Your task to perform on an android device: delete location history Image 0: 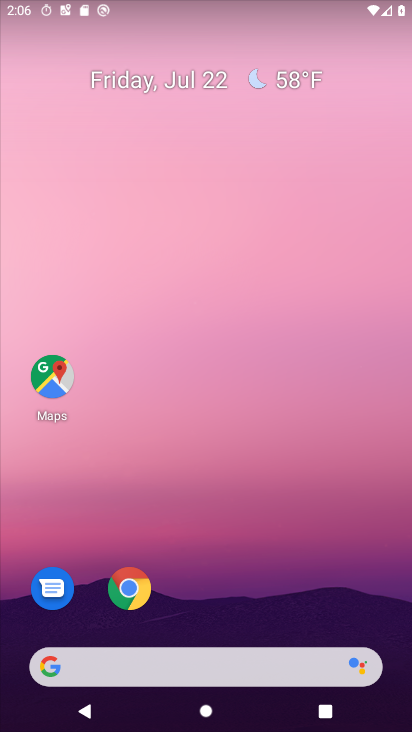
Step 0: drag from (315, 602) to (280, 53)
Your task to perform on an android device: delete location history Image 1: 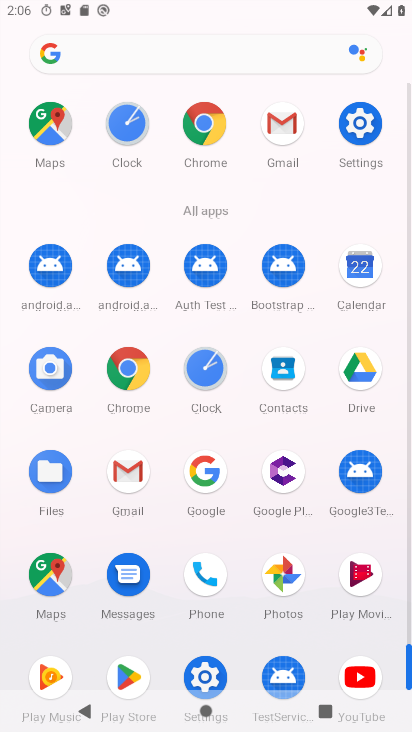
Step 1: click (46, 129)
Your task to perform on an android device: delete location history Image 2: 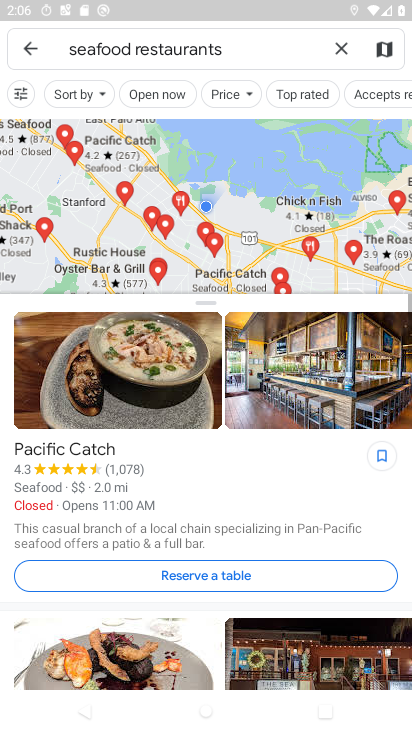
Step 2: click (26, 48)
Your task to perform on an android device: delete location history Image 3: 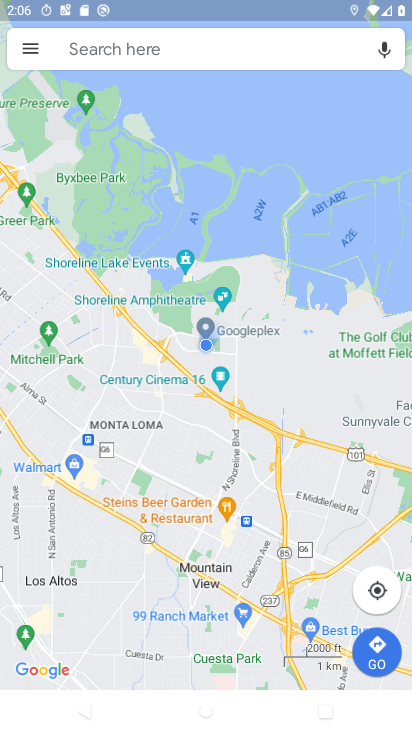
Step 3: click (26, 48)
Your task to perform on an android device: delete location history Image 4: 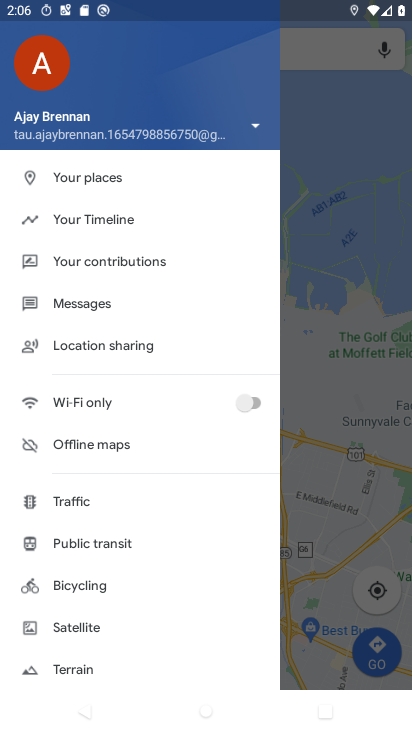
Step 4: drag from (98, 546) to (56, 220)
Your task to perform on an android device: delete location history Image 5: 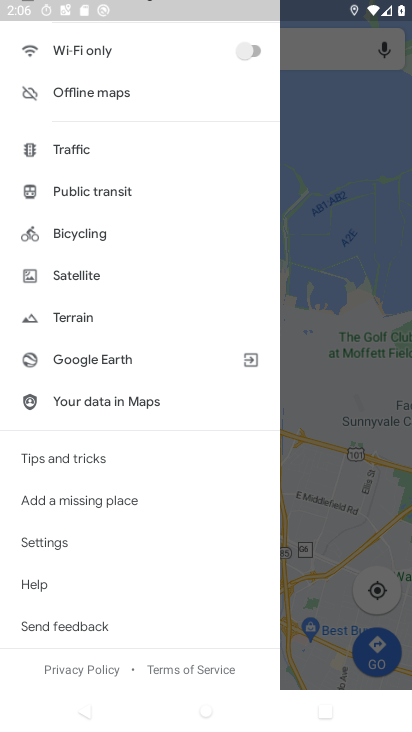
Step 5: drag from (73, 168) to (74, 570)
Your task to perform on an android device: delete location history Image 6: 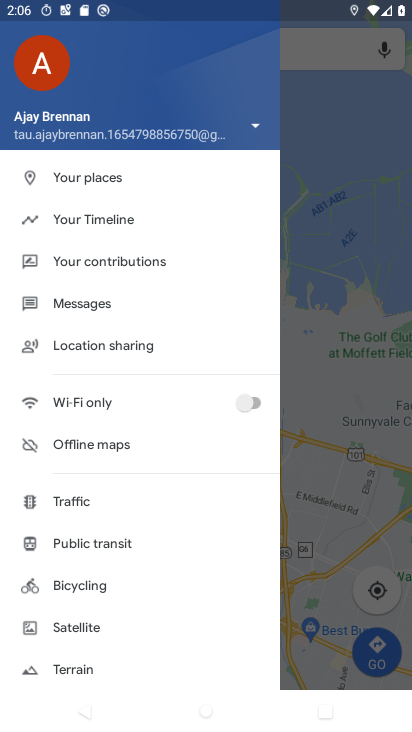
Step 6: click (40, 224)
Your task to perform on an android device: delete location history Image 7: 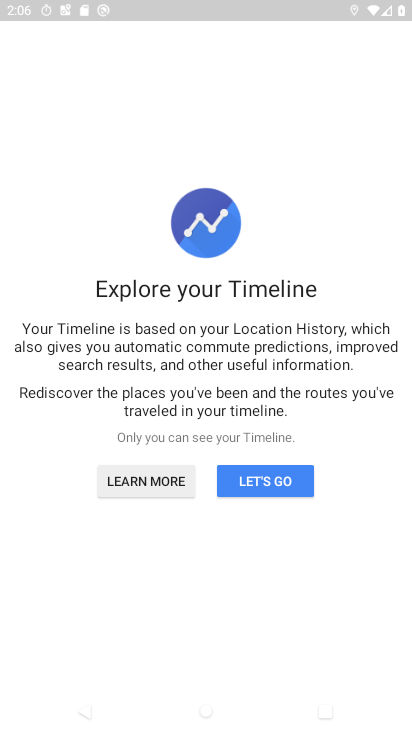
Step 7: click (269, 488)
Your task to perform on an android device: delete location history Image 8: 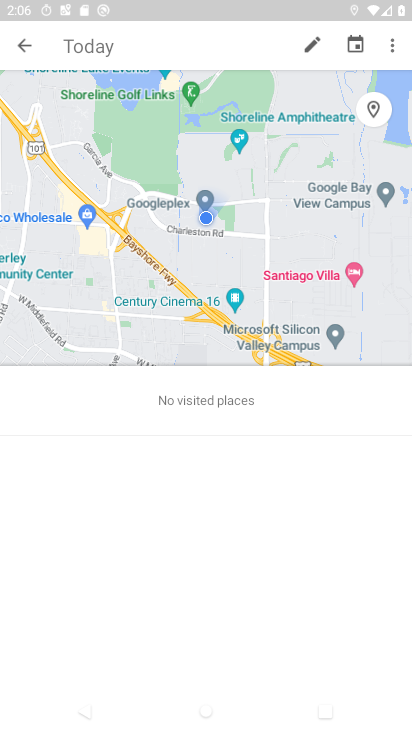
Step 8: click (396, 43)
Your task to perform on an android device: delete location history Image 9: 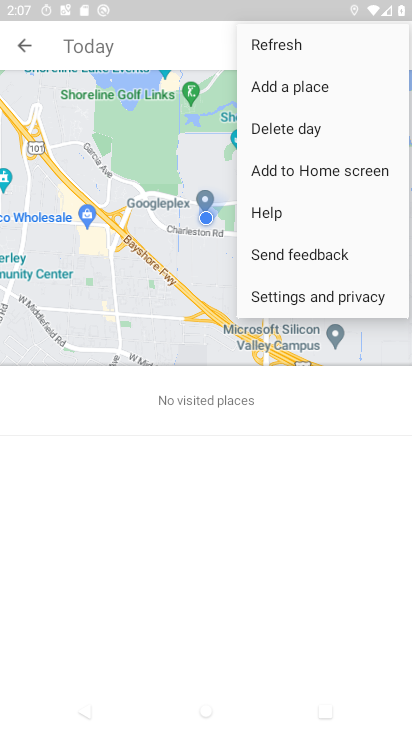
Step 9: click (263, 307)
Your task to perform on an android device: delete location history Image 10: 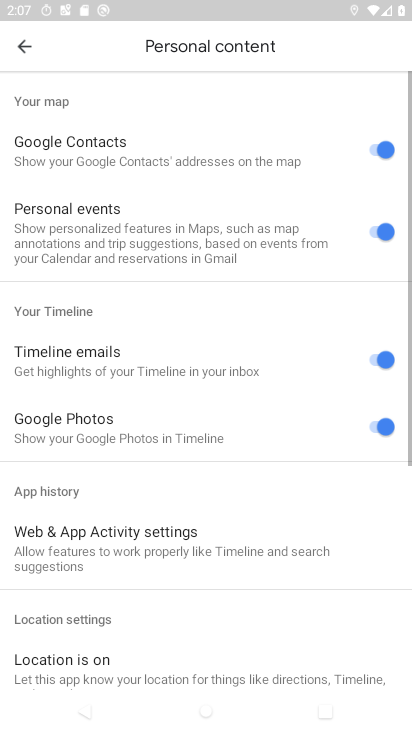
Step 10: drag from (91, 613) to (79, 82)
Your task to perform on an android device: delete location history Image 11: 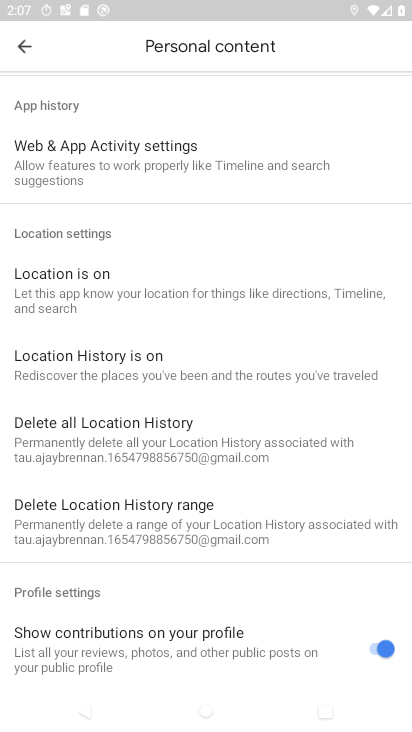
Step 11: click (60, 369)
Your task to perform on an android device: delete location history Image 12: 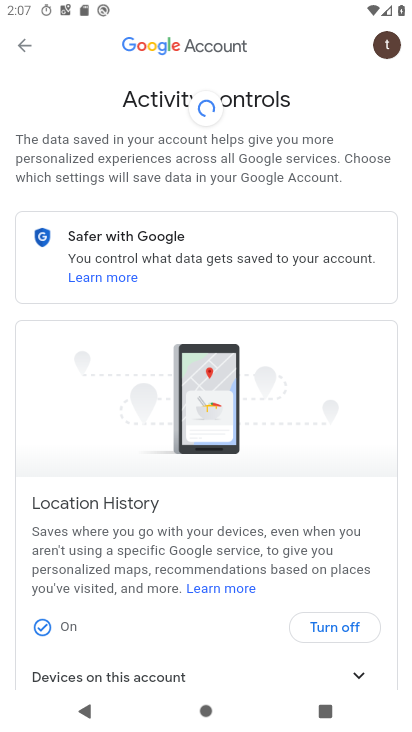
Step 12: click (325, 618)
Your task to perform on an android device: delete location history Image 13: 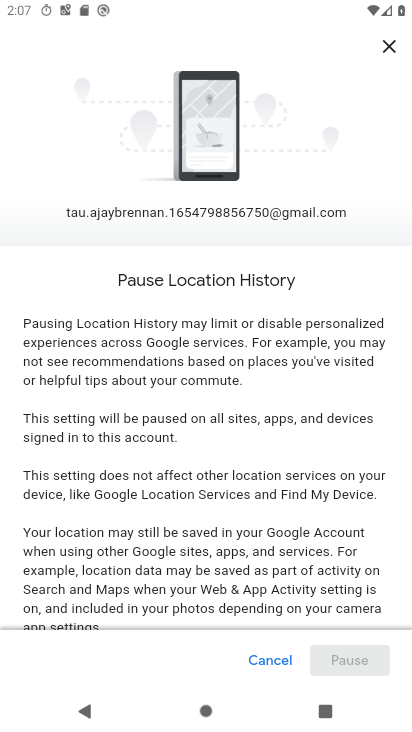
Step 13: click (392, 44)
Your task to perform on an android device: delete location history Image 14: 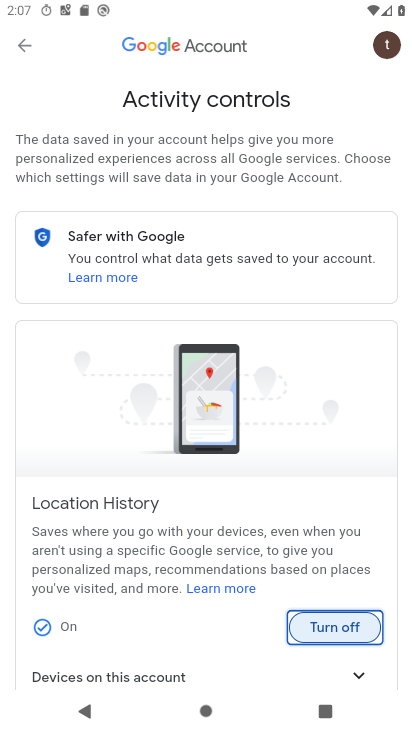
Step 14: click (26, 41)
Your task to perform on an android device: delete location history Image 15: 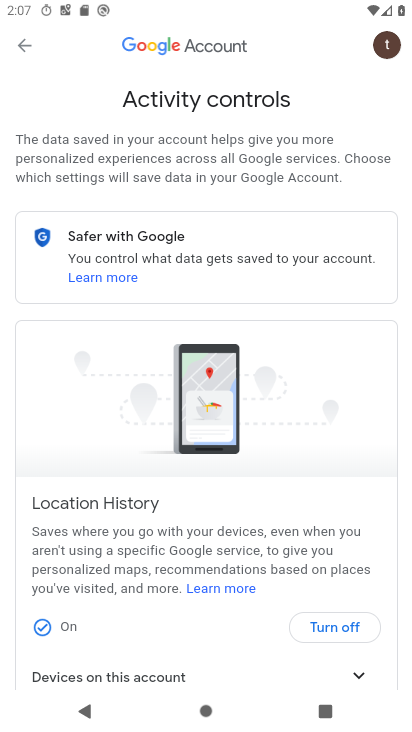
Step 15: drag from (296, 655) to (288, 287)
Your task to perform on an android device: delete location history Image 16: 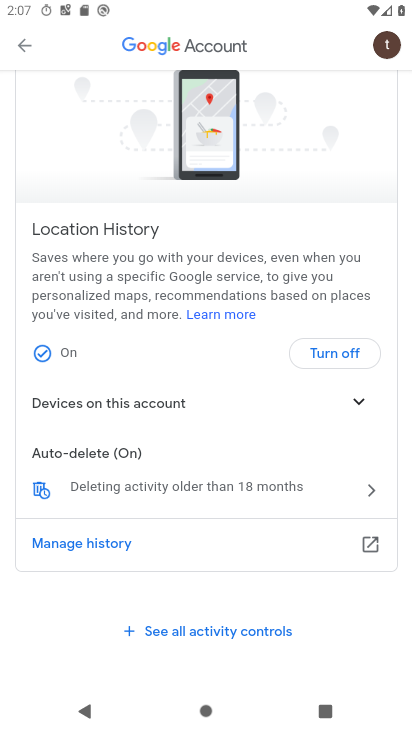
Step 16: click (8, 51)
Your task to perform on an android device: delete location history Image 17: 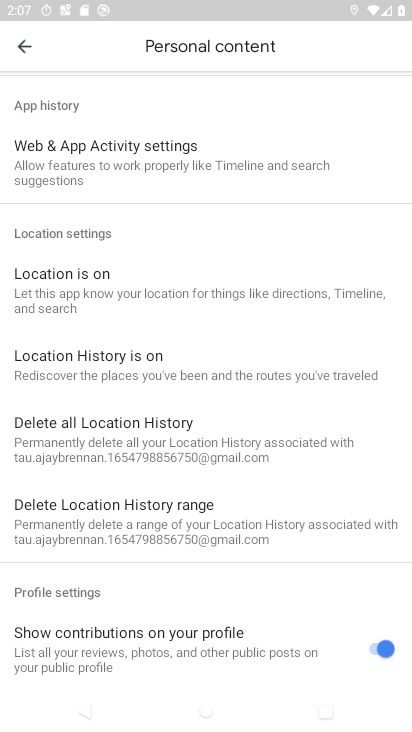
Step 17: click (130, 464)
Your task to perform on an android device: delete location history Image 18: 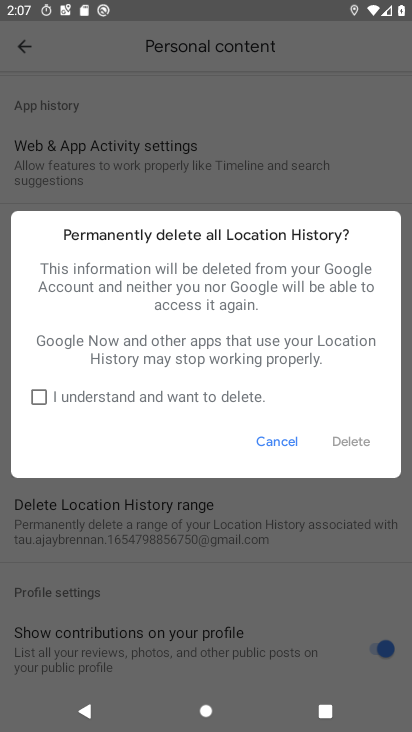
Step 18: click (211, 390)
Your task to perform on an android device: delete location history Image 19: 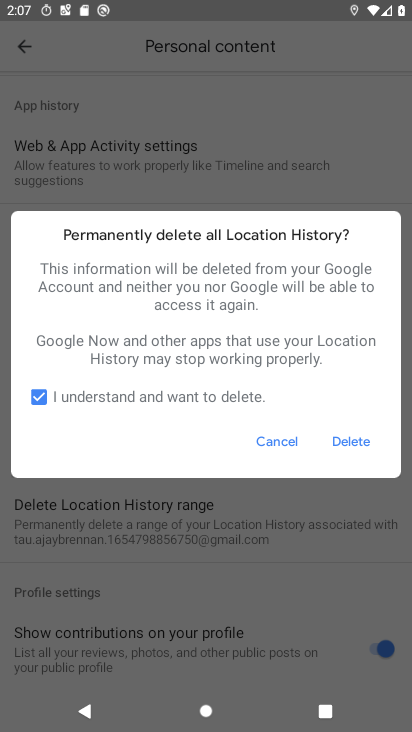
Step 19: click (361, 441)
Your task to perform on an android device: delete location history Image 20: 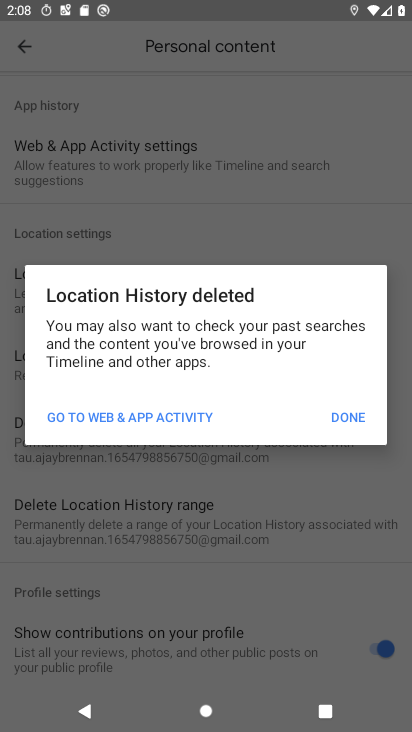
Step 20: click (353, 430)
Your task to perform on an android device: delete location history Image 21: 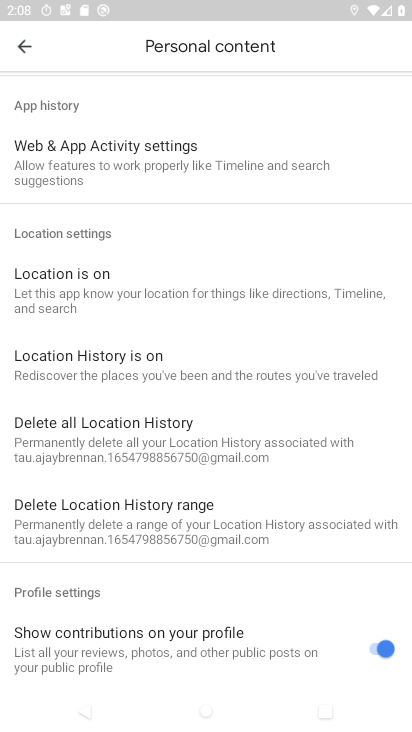
Step 21: task complete